Your task to perform on an android device: Open the web browser Image 0: 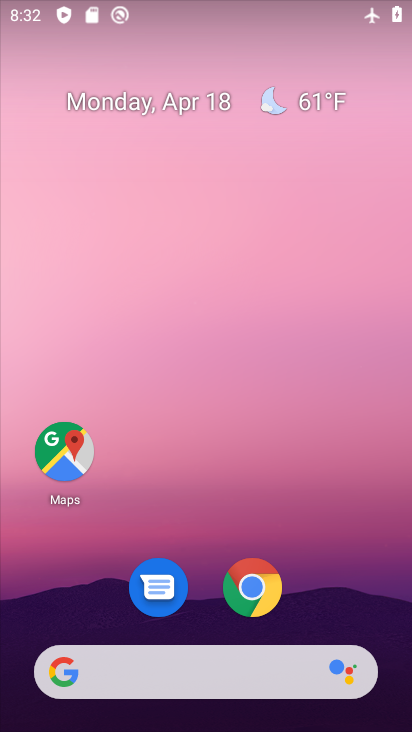
Step 0: click (252, 584)
Your task to perform on an android device: Open the web browser Image 1: 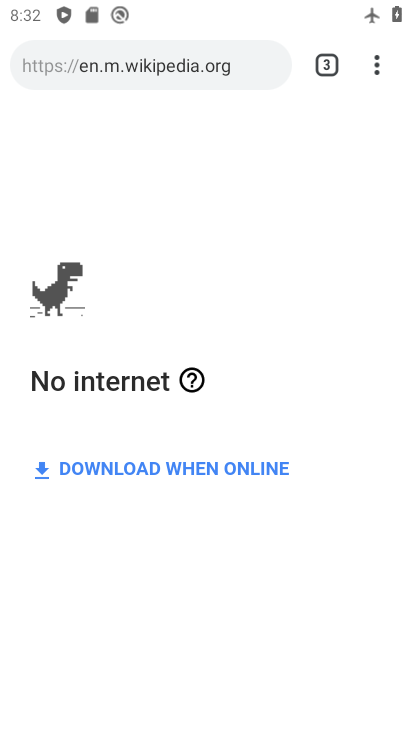
Step 1: task complete